Your task to perform on an android device: When is my next meeting? Image 0: 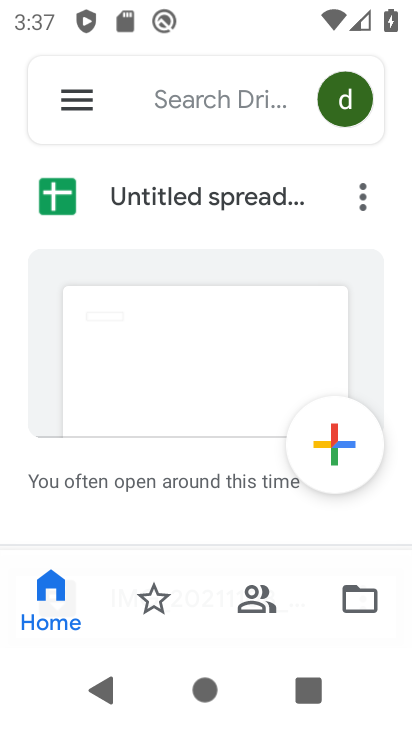
Step 0: press home button
Your task to perform on an android device: When is my next meeting? Image 1: 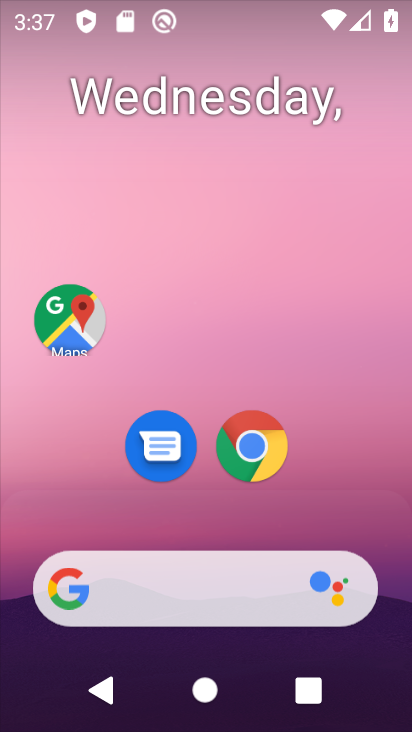
Step 1: drag from (249, 483) to (339, 91)
Your task to perform on an android device: When is my next meeting? Image 2: 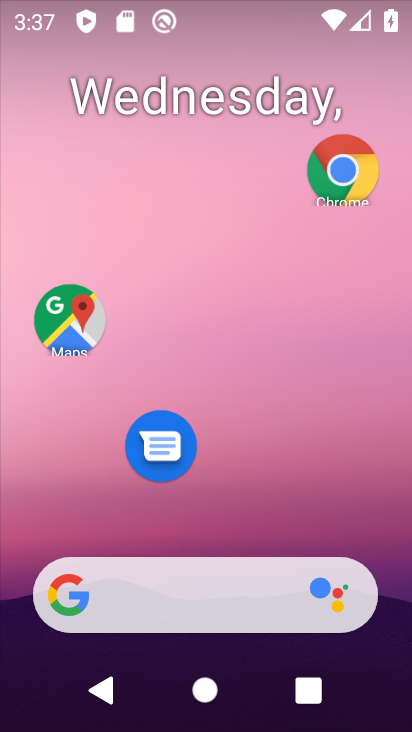
Step 2: click (297, 448)
Your task to perform on an android device: When is my next meeting? Image 3: 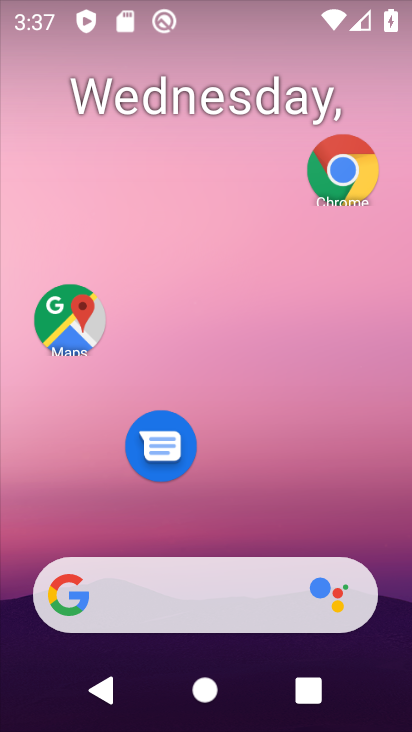
Step 3: drag from (270, 508) to (263, 52)
Your task to perform on an android device: When is my next meeting? Image 4: 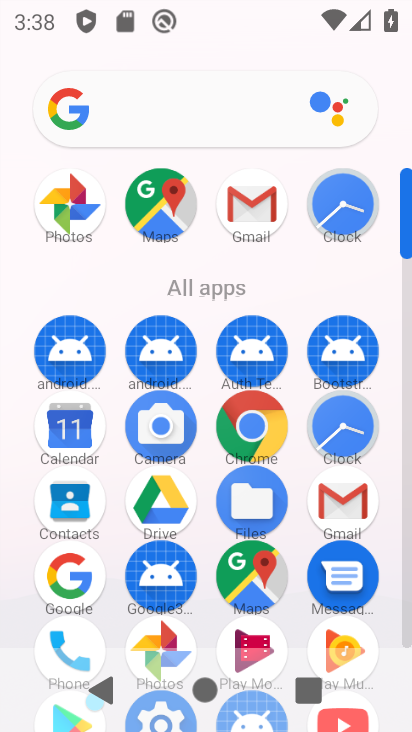
Step 4: click (73, 426)
Your task to perform on an android device: When is my next meeting? Image 5: 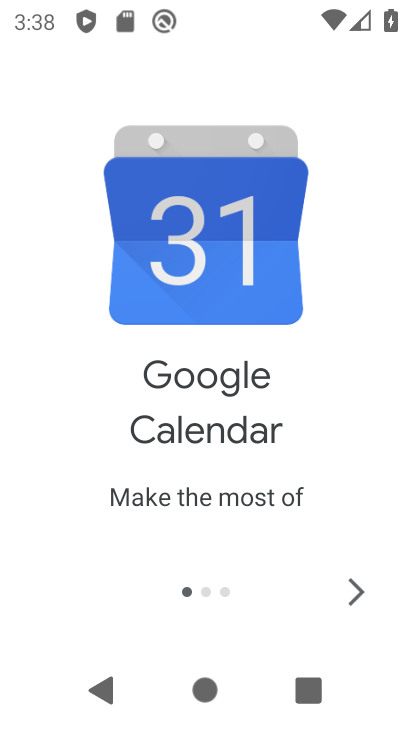
Step 5: click (347, 590)
Your task to perform on an android device: When is my next meeting? Image 6: 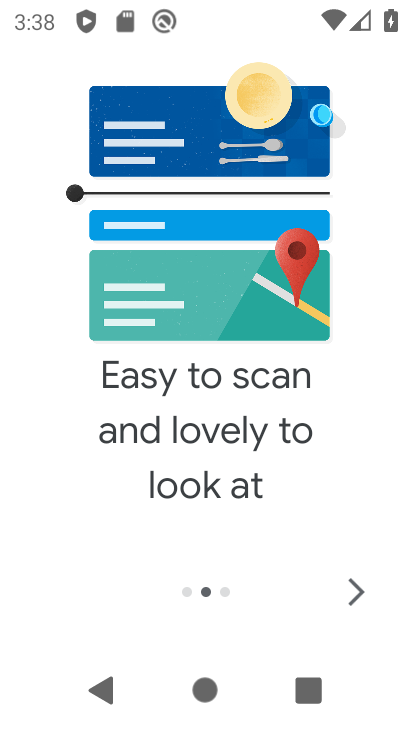
Step 6: click (355, 590)
Your task to perform on an android device: When is my next meeting? Image 7: 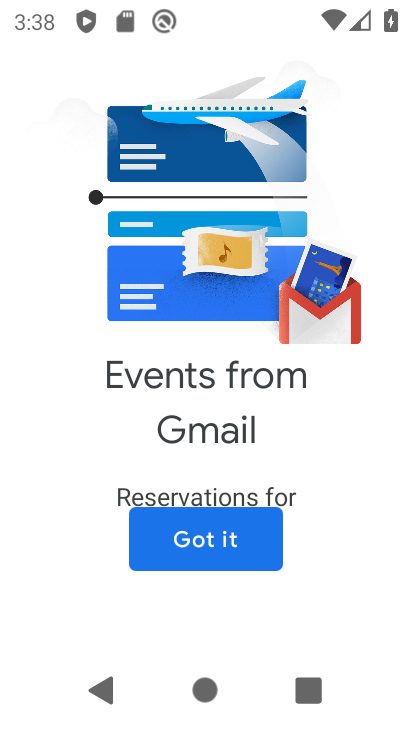
Step 7: click (232, 543)
Your task to perform on an android device: When is my next meeting? Image 8: 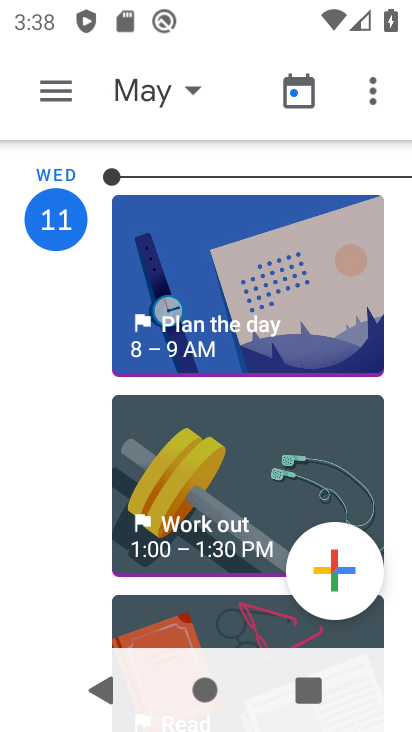
Step 8: click (37, 87)
Your task to perform on an android device: When is my next meeting? Image 9: 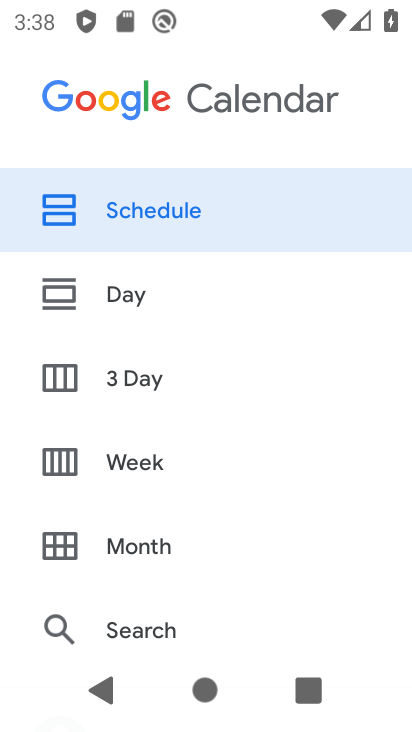
Step 9: click (101, 202)
Your task to perform on an android device: When is my next meeting? Image 10: 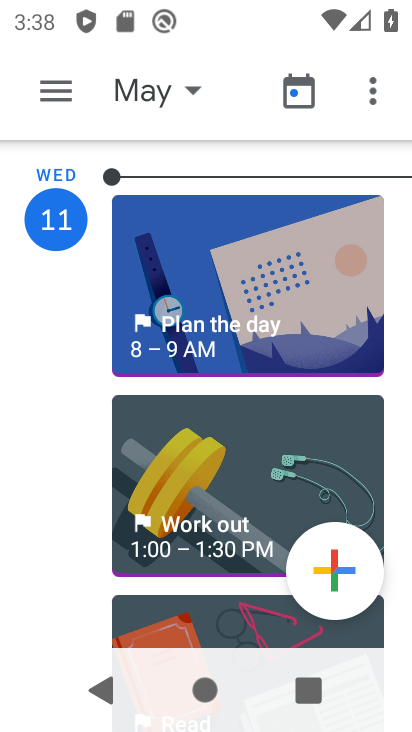
Step 10: task complete